Your task to perform on an android device: Google the capital of Venezuela Image 0: 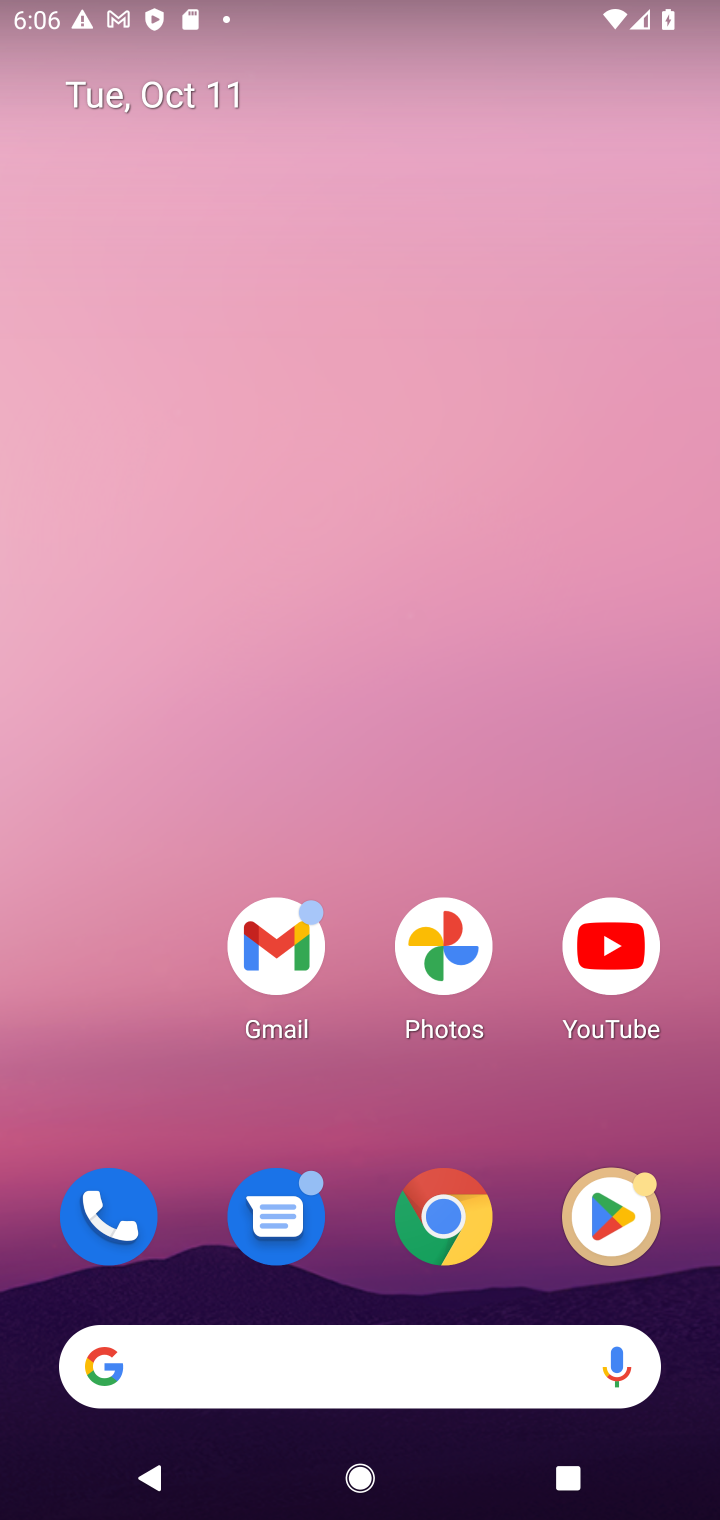
Step 0: click (449, 1213)
Your task to perform on an android device: Google the capital of Venezuela Image 1: 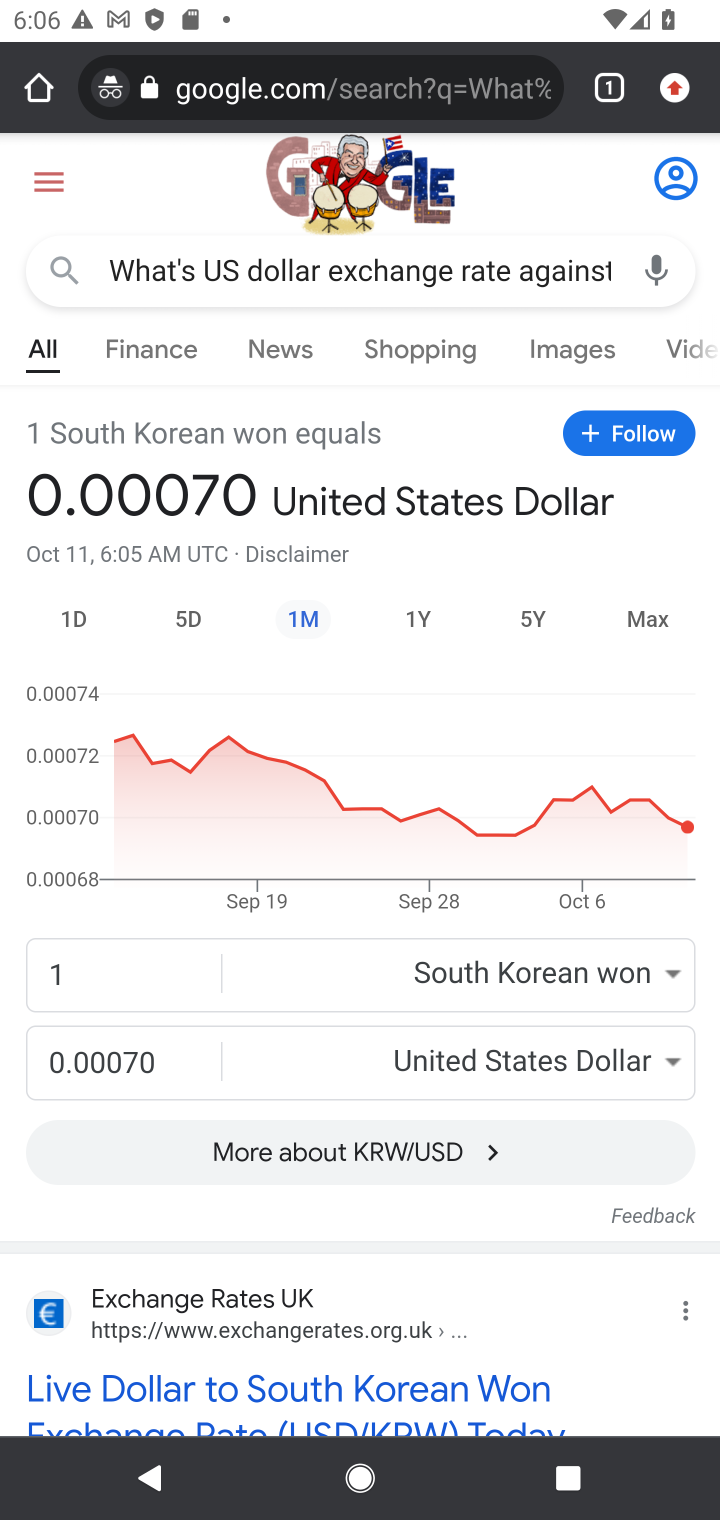
Step 1: click (362, 80)
Your task to perform on an android device: Google the capital of Venezuela Image 2: 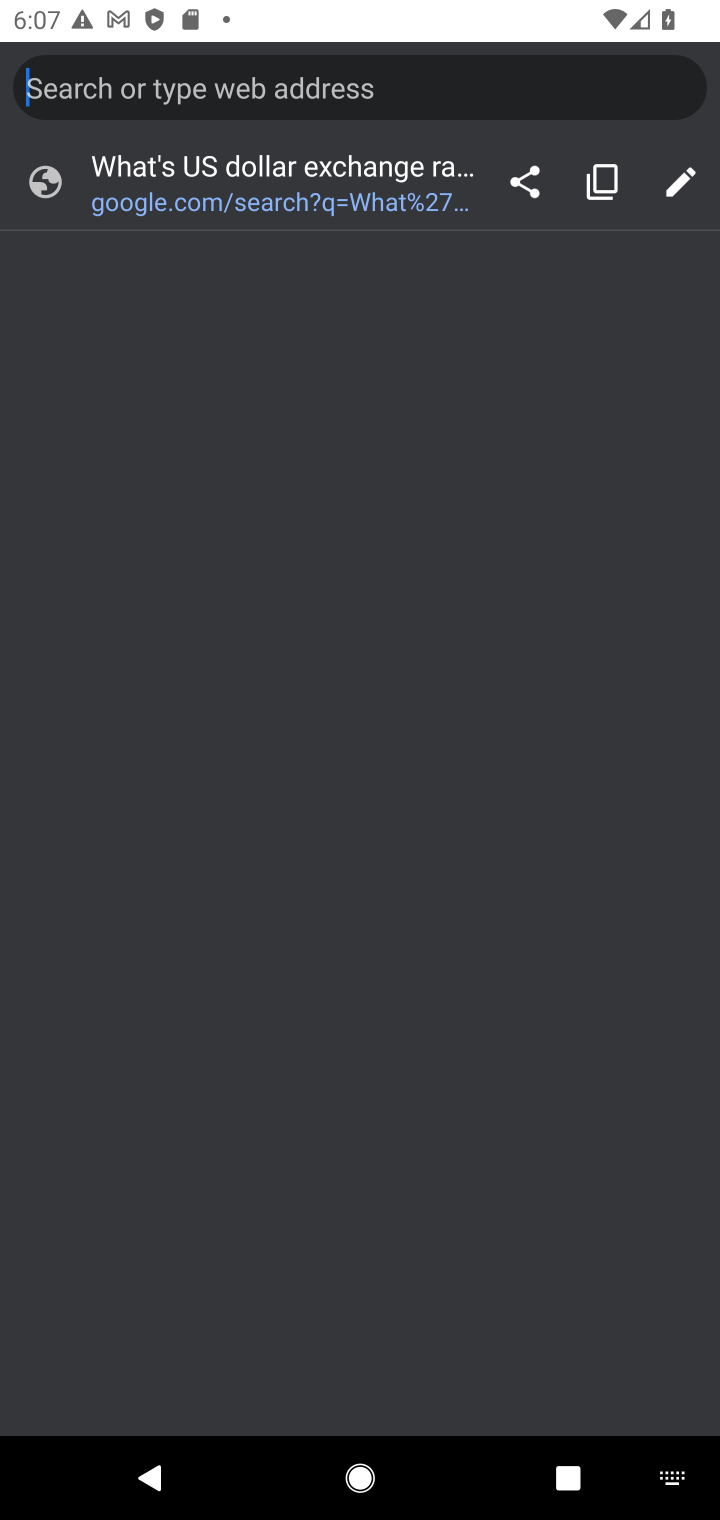
Step 2: type "capital of Venezuela"
Your task to perform on an android device: Google the capital of Venezuela Image 3: 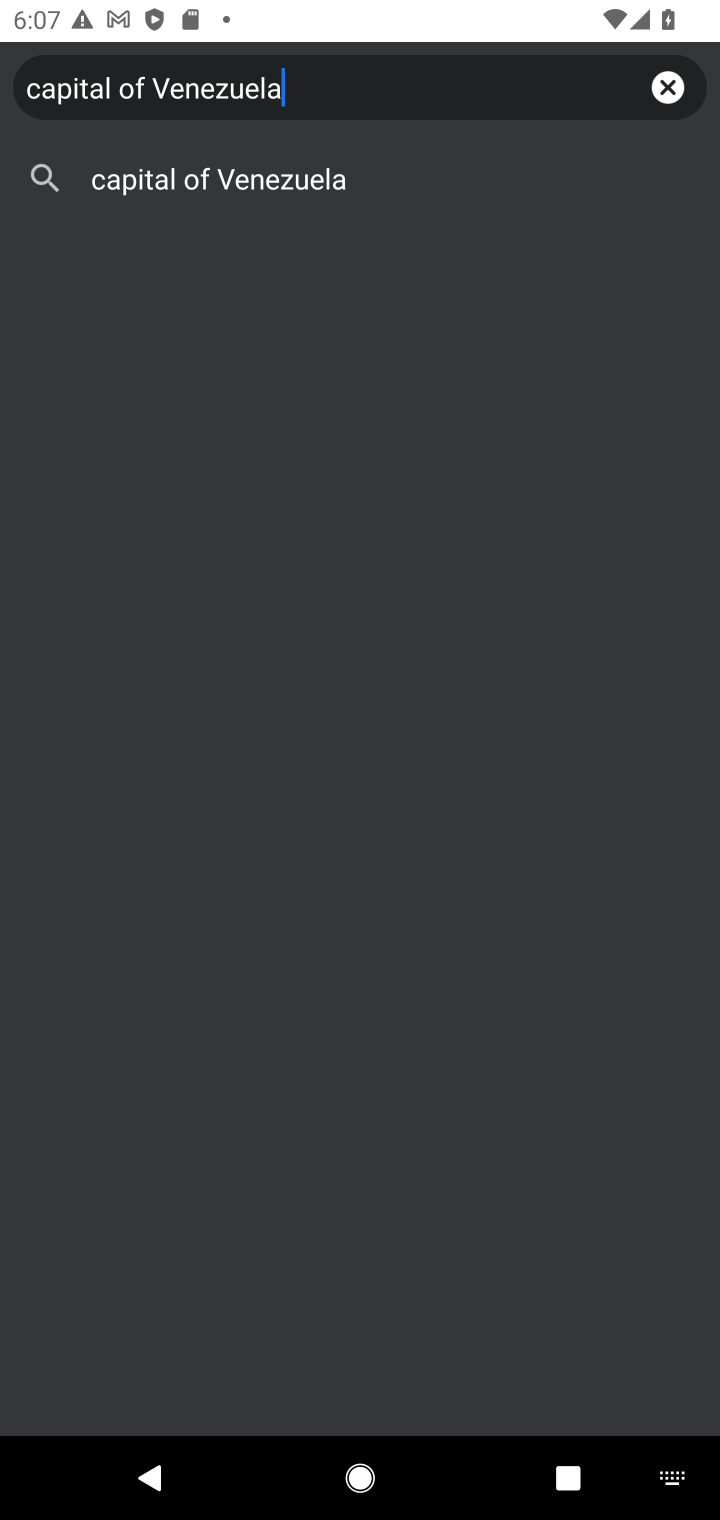
Step 3: click (332, 188)
Your task to perform on an android device: Google the capital of Venezuela Image 4: 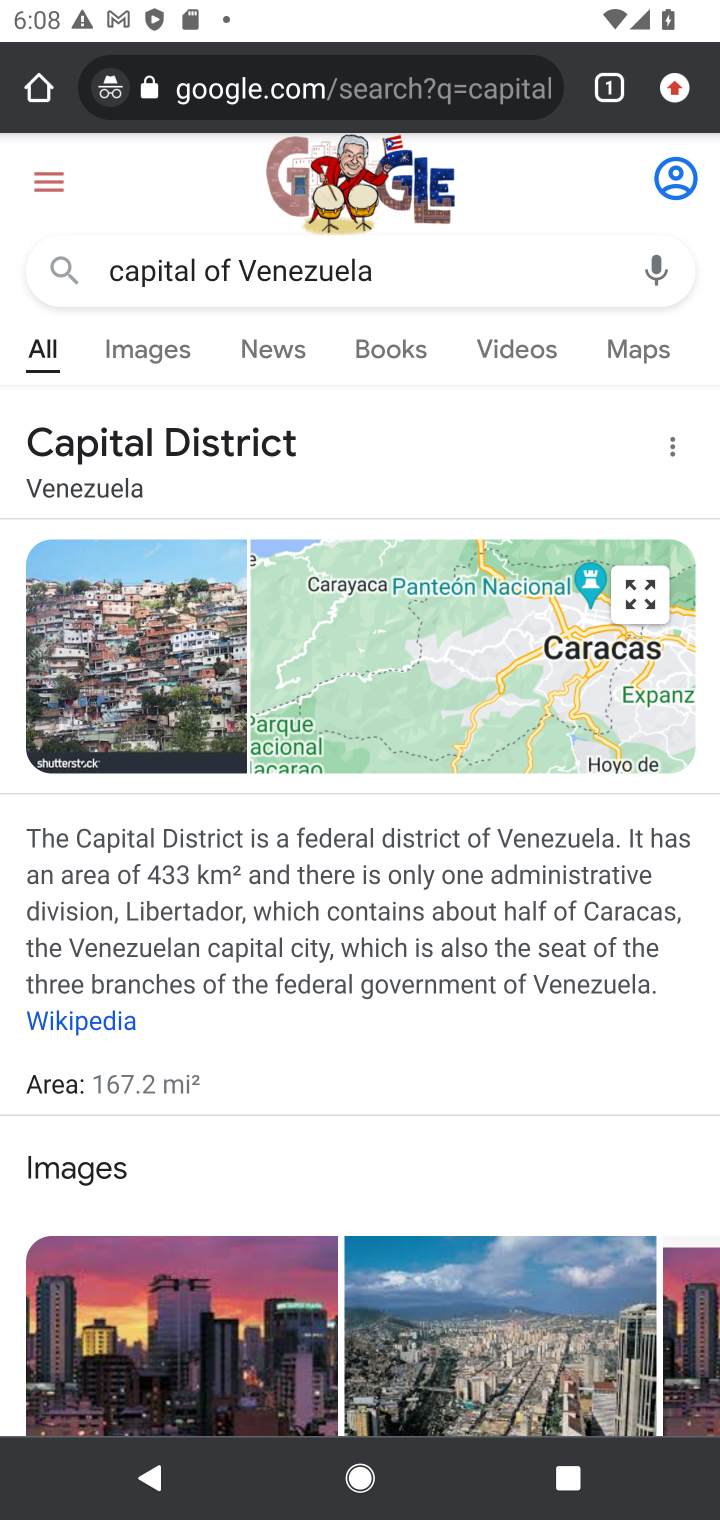
Step 4: task complete